Your task to perform on an android device: When is my next appointment? Image 0: 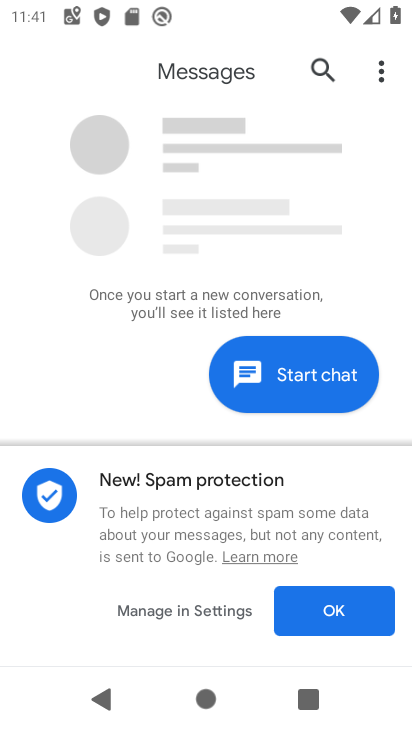
Step 0: press home button
Your task to perform on an android device: When is my next appointment? Image 1: 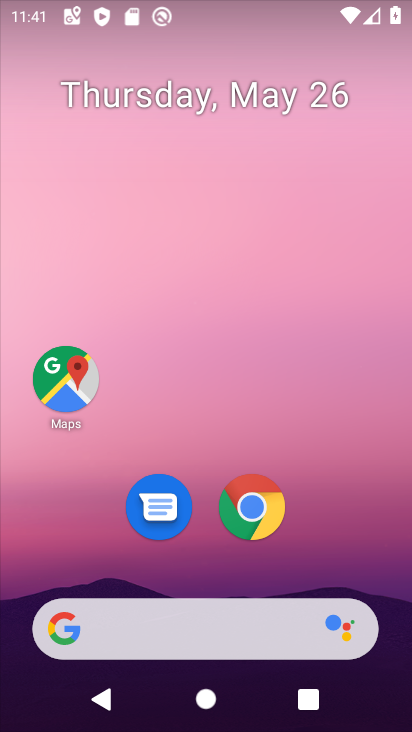
Step 1: drag from (307, 527) to (326, 97)
Your task to perform on an android device: When is my next appointment? Image 2: 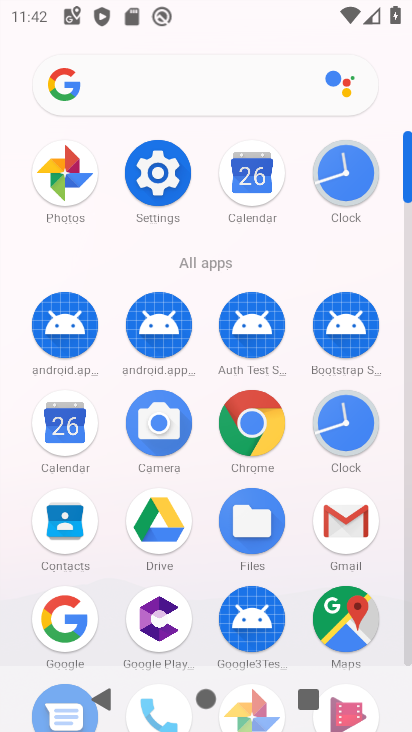
Step 2: click (70, 434)
Your task to perform on an android device: When is my next appointment? Image 3: 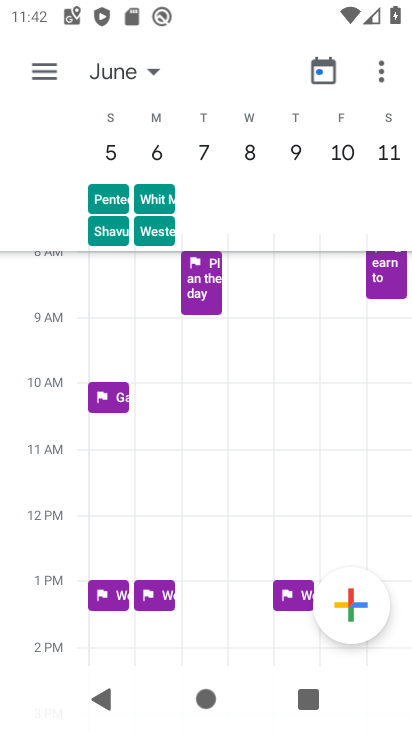
Step 3: click (122, 75)
Your task to perform on an android device: When is my next appointment? Image 4: 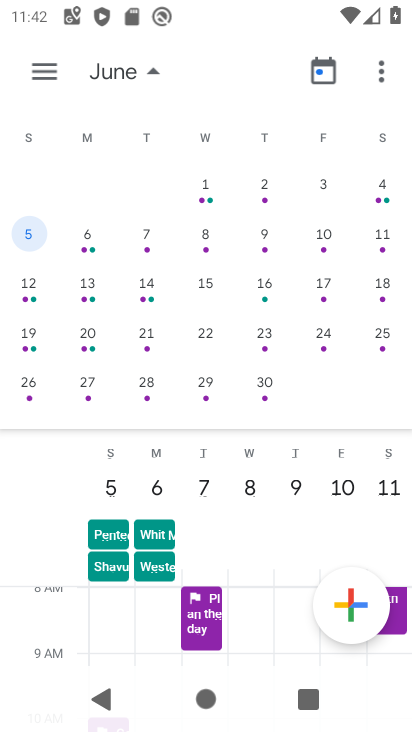
Step 4: drag from (59, 307) to (350, 265)
Your task to perform on an android device: When is my next appointment? Image 5: 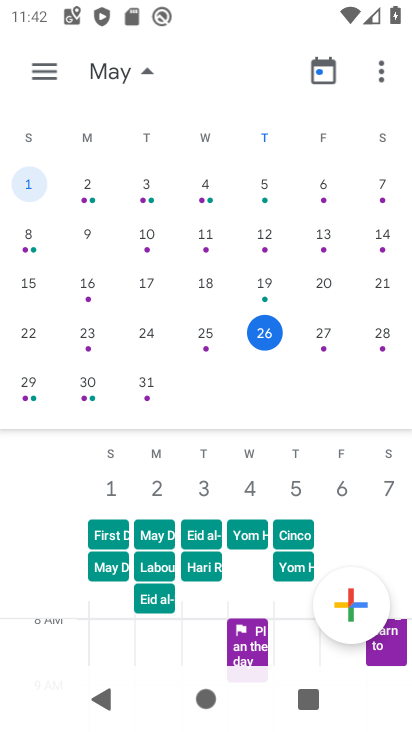
Step 5: drag from (62, 361) to (261, 315)
Your task to perform on an android device: When is my next appointment? Image 6: 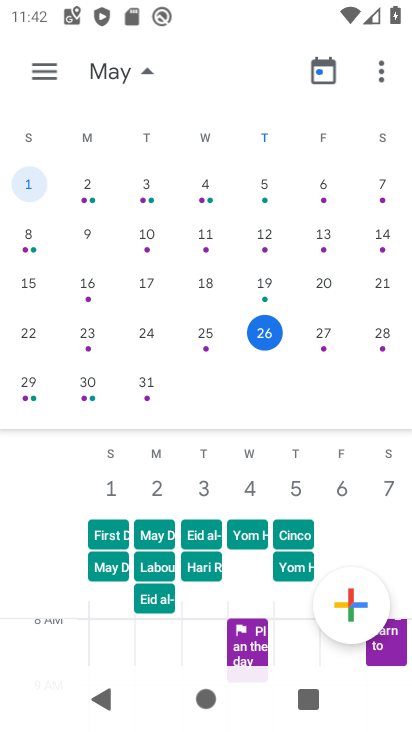
Step 6: click (256, 337)
Your task to perform on an android device: When is my next appointment? Image 7: 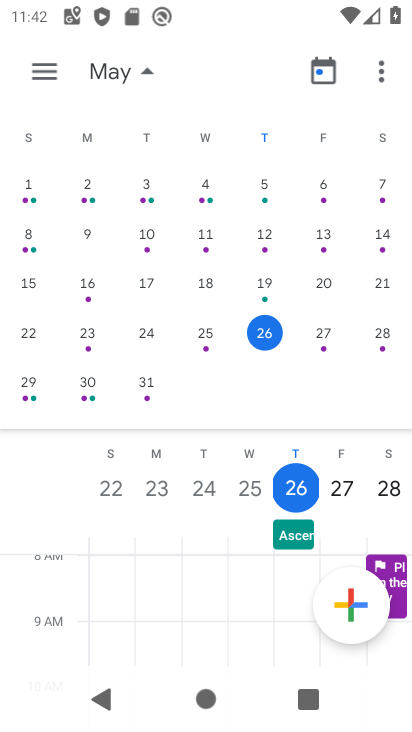
Step 7: task complete